Your task to perform on an android device: toggle priority inbox in the gmail app Image 0: 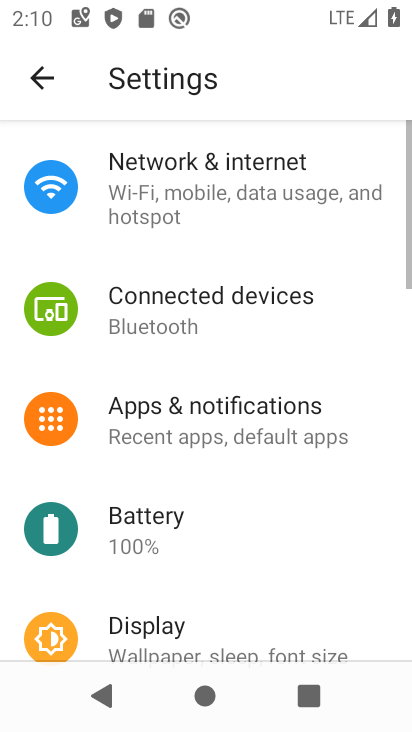
Step 0: press home button
Your task to perform on an android device: toggle priority inbox in the gmail app Image 1: 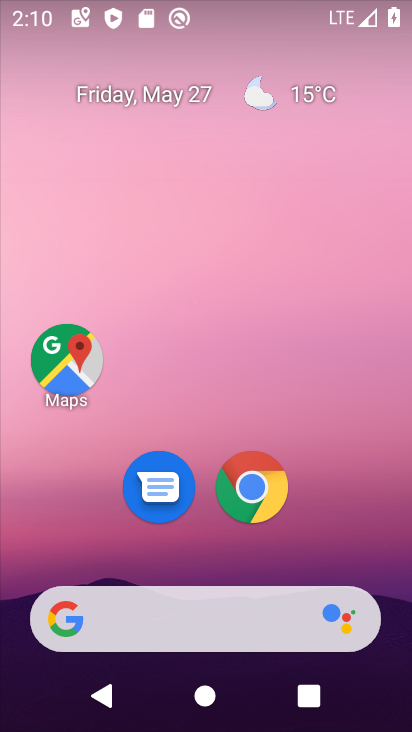
Step 1: drag from (317, 452) to (249, 181)
Your task to perform on an android device: toggle priority inbox in the gmail app Image 2: 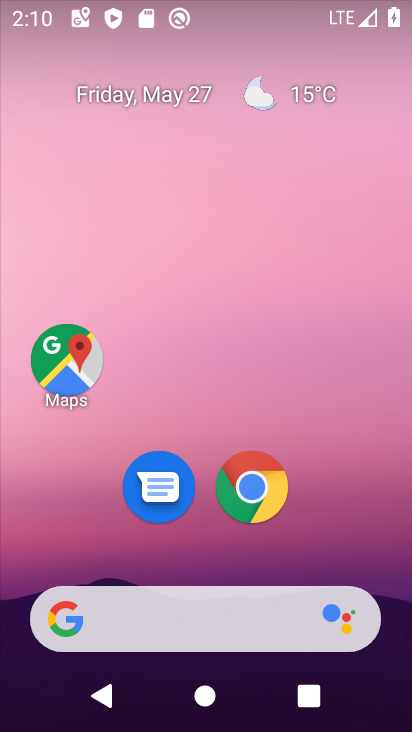
Step 2: drag from (338, 452) to (275, 169)
Your task to perform on an android device: toggle priority inbox in the gmail app Image 3: 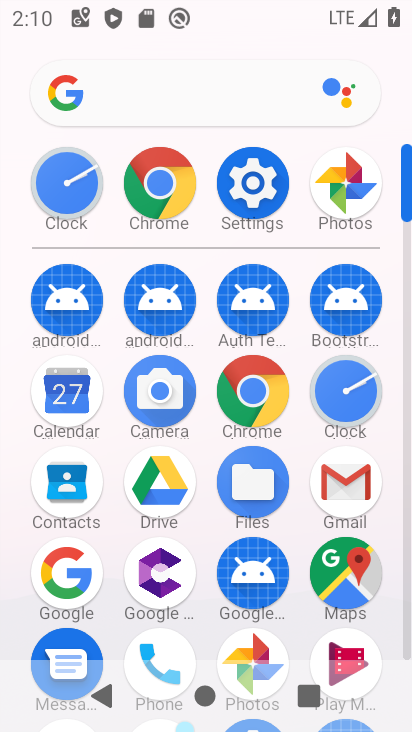
Step 3: click (340, 494)
Your task to perform on an android device: toggle priority inbox in the gmail app Image 4: 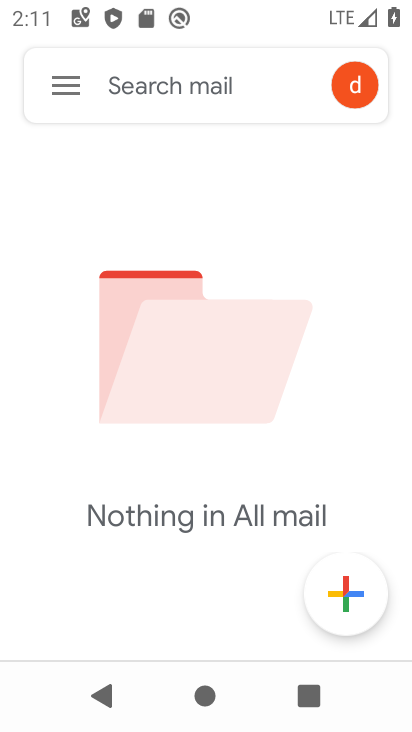
Step 4: click (75, 85)
Your task to perform on an android device: toggle priority inbox in the gmail app Image 5: 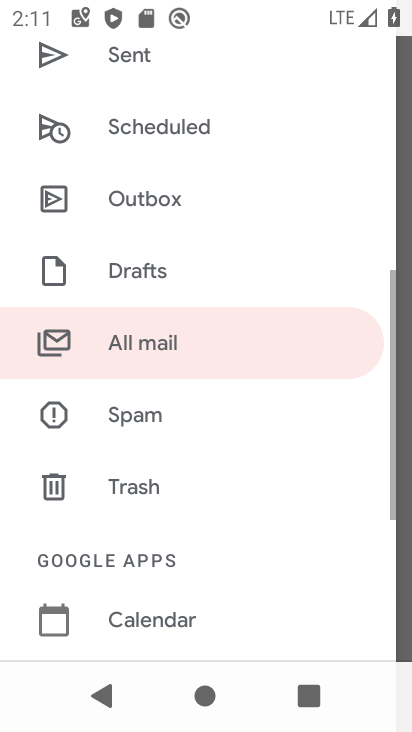
Step 5: drag from (228, 534) to (307, 162)
Your task to perform on an android device: toggle priority inbox in the gmail app Image 6: 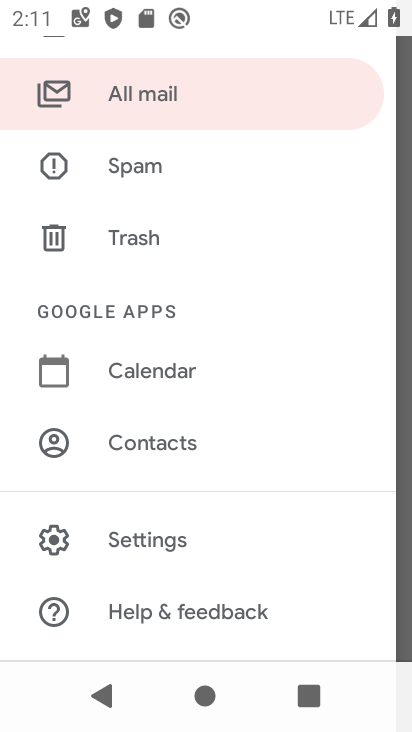
Step 6: click (155, 552)
Your task to perform on an android device: toggle priority inbox in the gmail app Image 7: 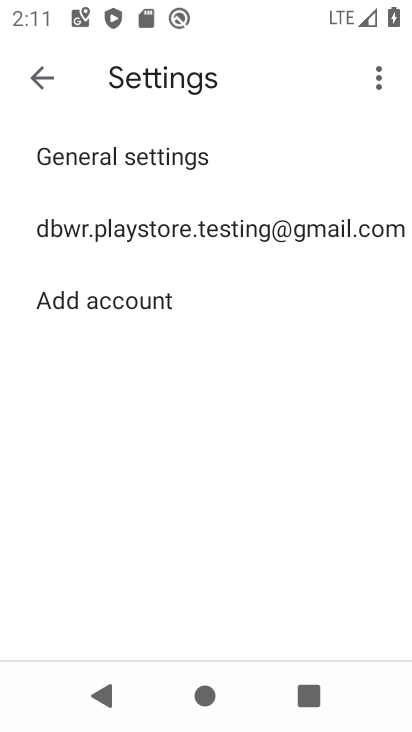
Step 7: click (174, 234)
Your task to perform on an android device: toggle priority inbox in the gmail app Image 8: 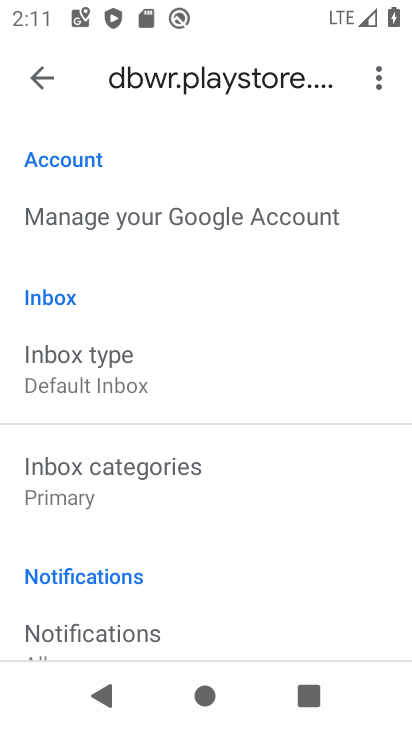
Step 8: click (121, 356)
Your task to perform on an android device: toggle priority inbox in the gmail app Image 9: 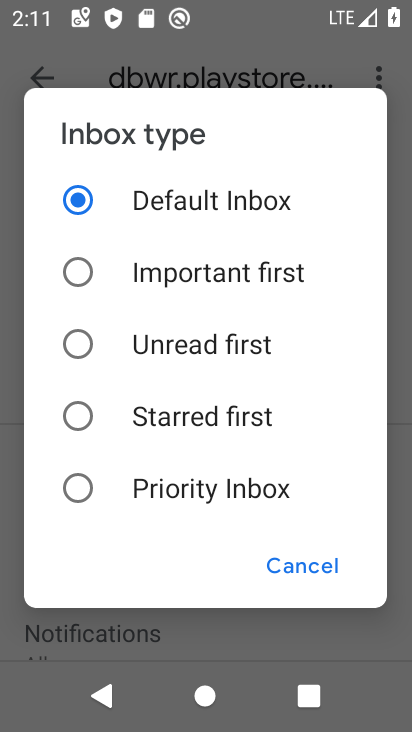
Step 9: click (191, 476)
Your task to perform on an android device: toggle priority inbox in the gmail app Image 10: 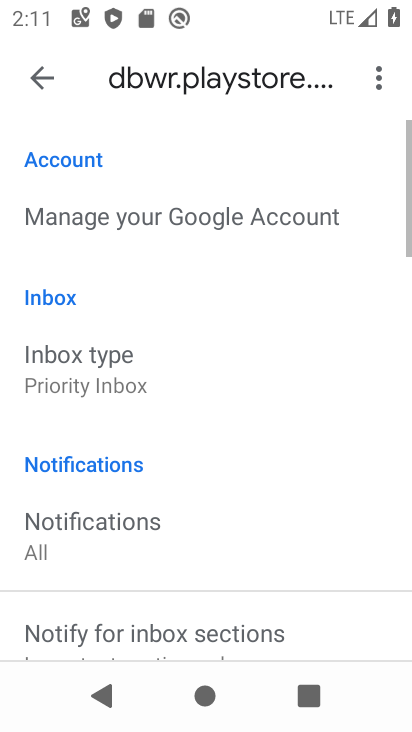
Step 10: task complete